Your task to perform on an android device: open device folders in google photos Image 0: 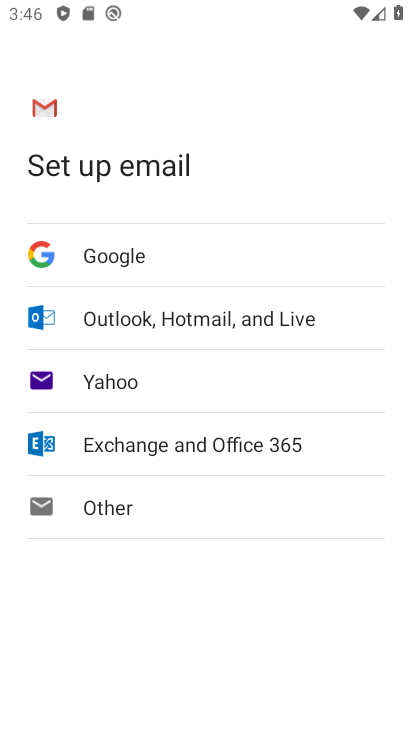
Step 0: press home button
Your task to perform on an android device: open device folders in google photos Image 1: 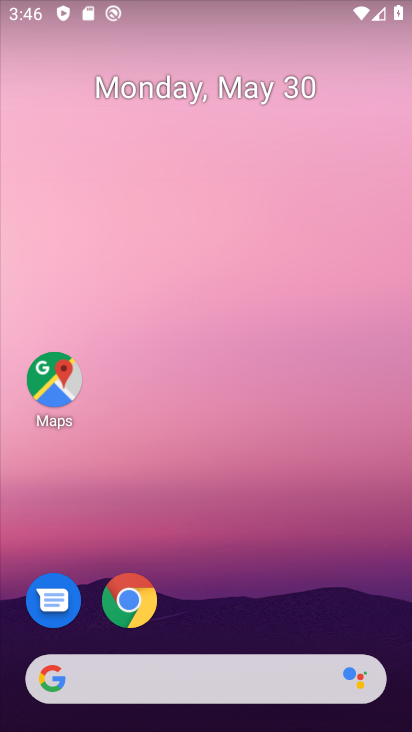
Step 1: drag from (233, 607) to (161, 152)
Your task to perform on an android device: open device folders in google photos Image 2: 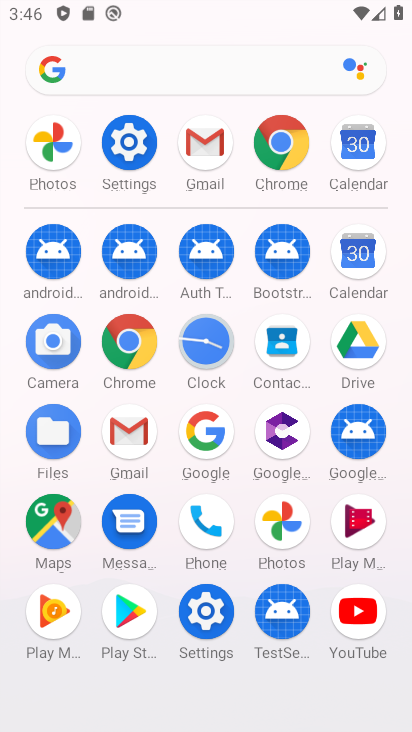
Step 2: click (67, 141)
Your task to perform on an android device: open device folders in google photos Image 3: 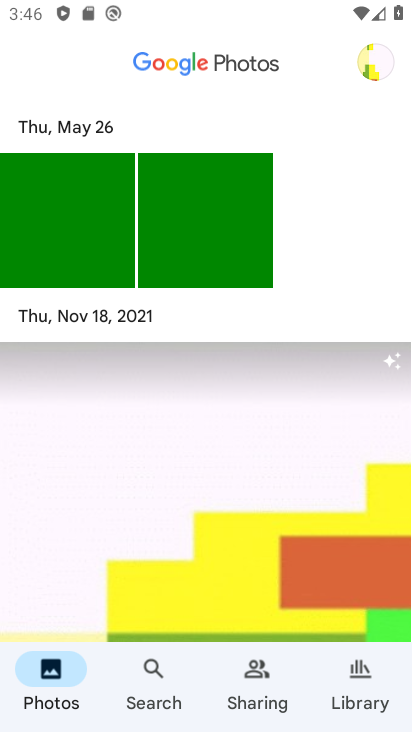
Step 3: click (361, 694)
Your task to perform on an android device: open device folders in google photos Image 4: 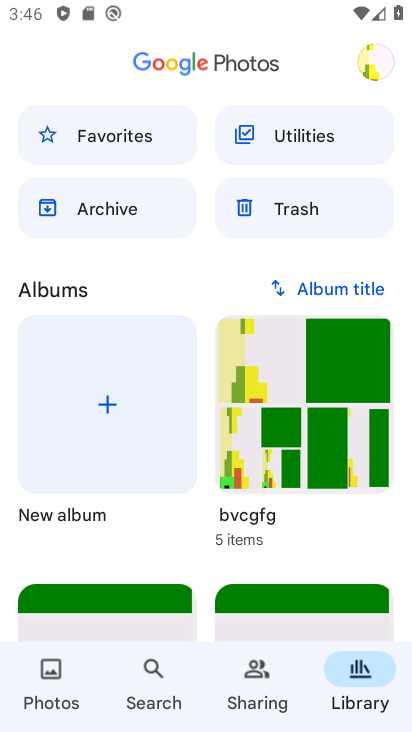
Step 4: click (384, 60)
Your task to perform on an android device: open device folders in google photos Image 5: 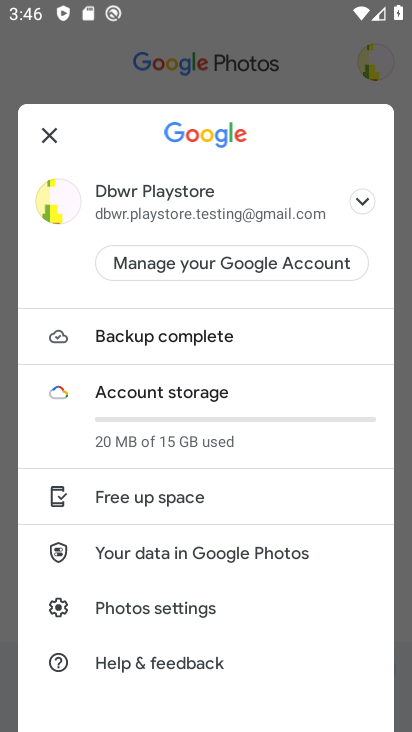
Step 5: click (53, 137)
Your task to perform on an android device: open device folders in google photos Image 6: 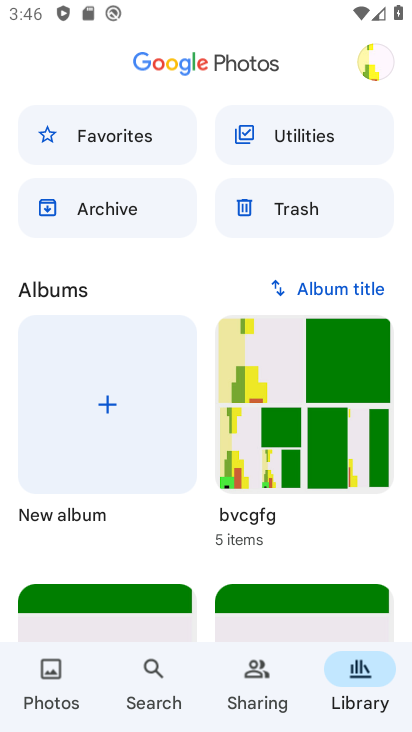
Step 6: task complete